Your task to perform on an android device: See recent photos Image 0: 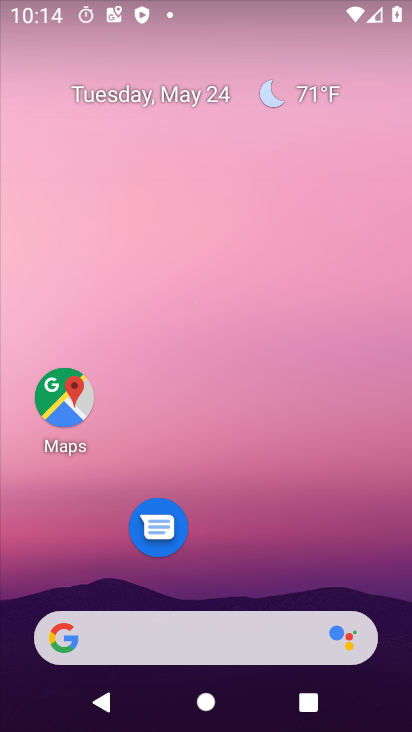
Step 0: drag from (253, 553) to (281, 77)
Your task to perform on an android device: See recent photos Image 1: 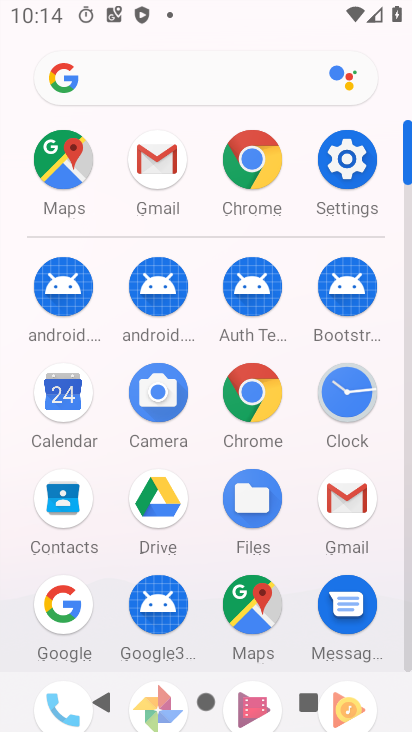
Step 1: drag from (199, 561) to (204, 257)
Your task to perform on an android device: See recent photos Image 2: 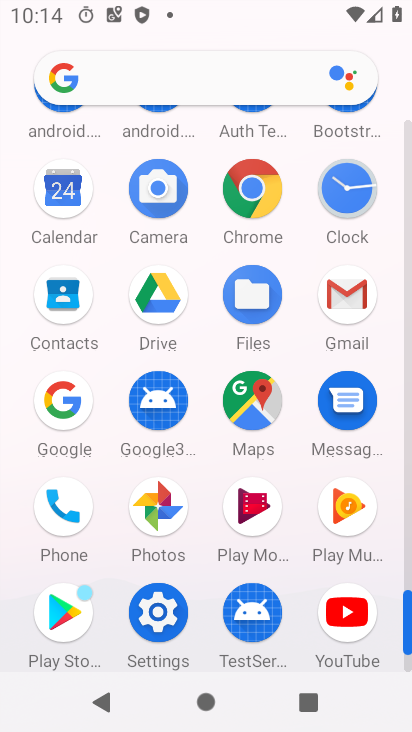
Step 2: click (159, 509)
Your task to perform on an android device: See recent photos Image 3: 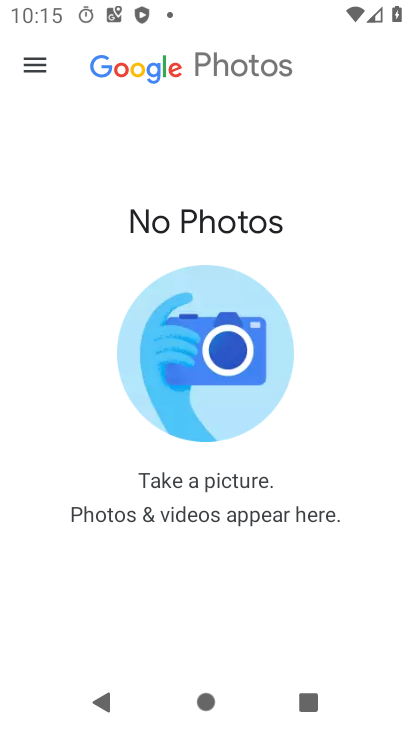
Step 3: task complete